Your task to perform on an android device: change notifications settings Image 0: 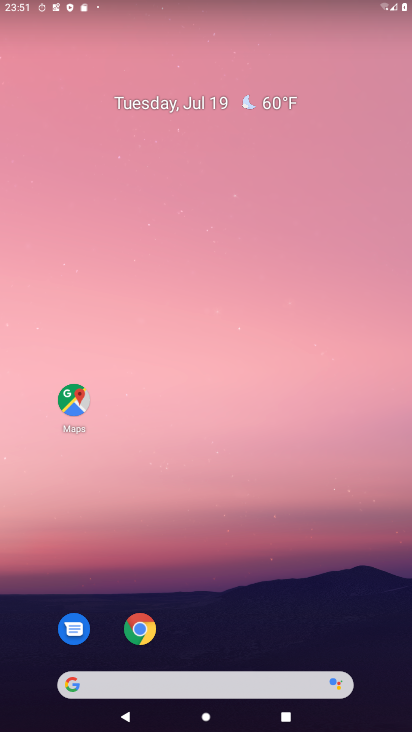
Step 0: drag from (266, 616) to (314, 132)
Your task to perform on an android device: change notifications settings Image 1: 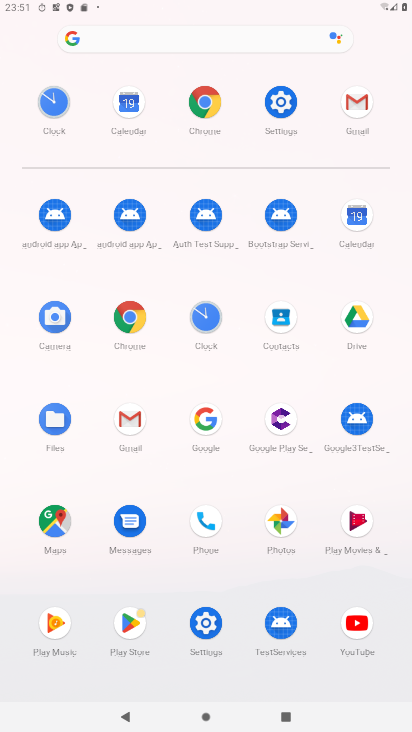
Step 1: click (291, 121)
Your task to perform on an android device: change notifications settings Image 2: 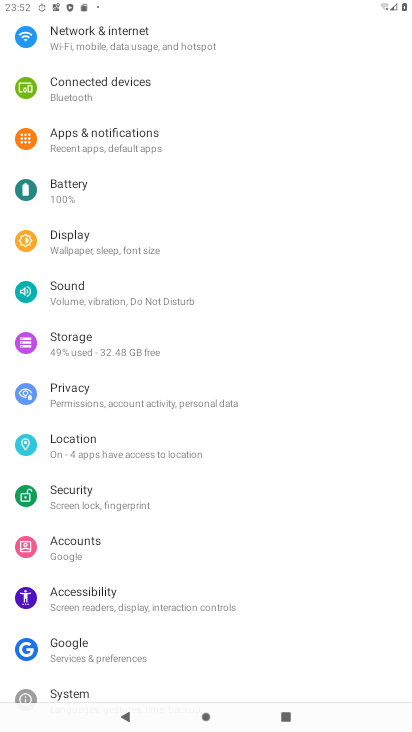
Step 2: click (196, 149)
Your task to perform on an android device: change notifications settings Image 3: 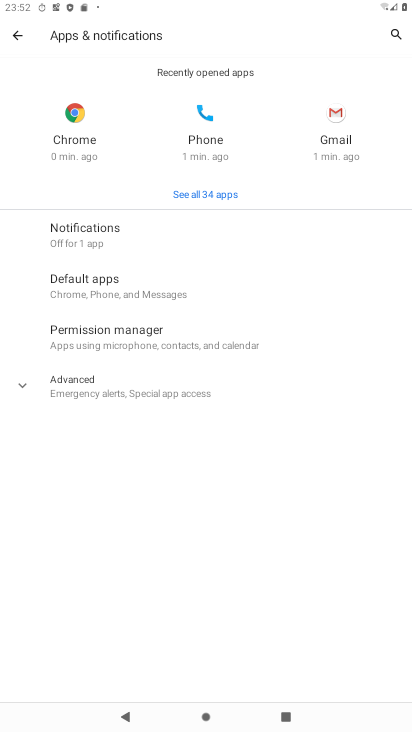
Step 3: click (60, 230)
Your task to perform on an android device: change notifications settings Image 4: 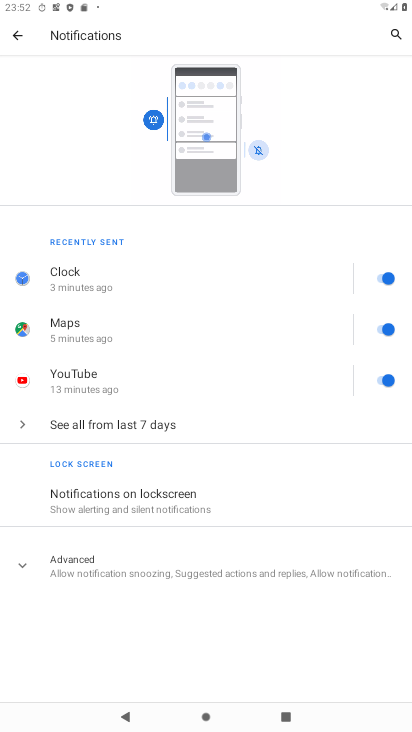
Step 4: click (166, 430)
Your task to perform on an android device: change notifications settings Image 5: 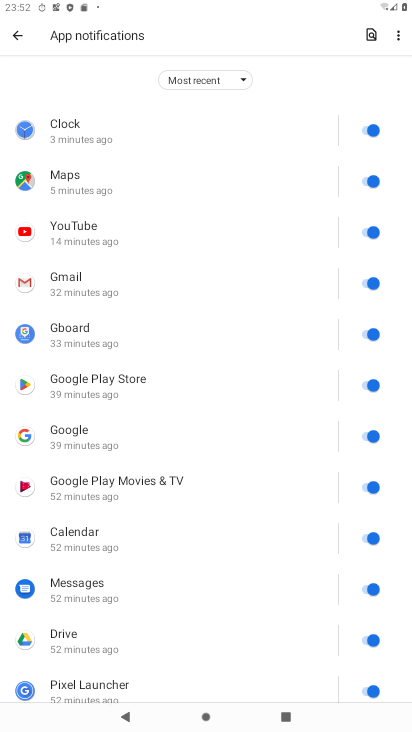
Step 5: click (380, 124)
Your task to perform on an android device: change notifications settings Image 6: 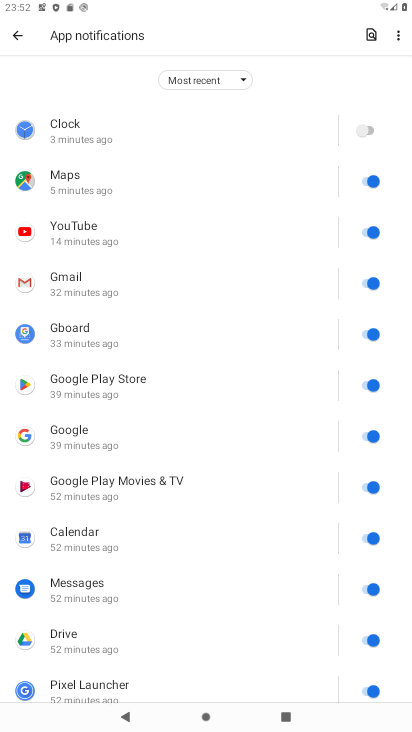
Step 6: click (362, 184)
Your task to perform on an android device: change notifications settings Image 7: 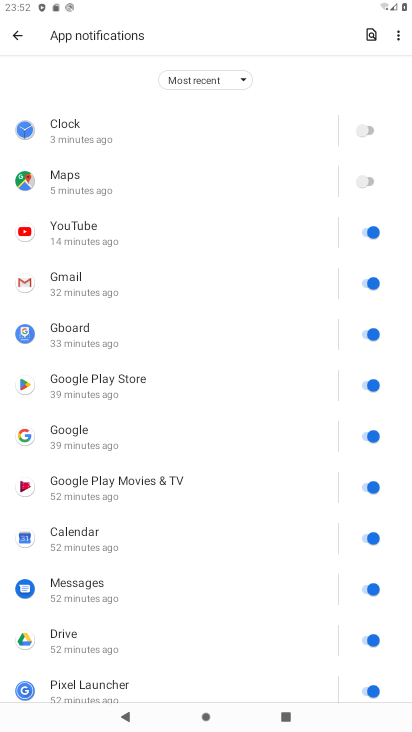
Step 7: click (367, 239)
Your task to perform on an android device: change notifications settings Image 8: 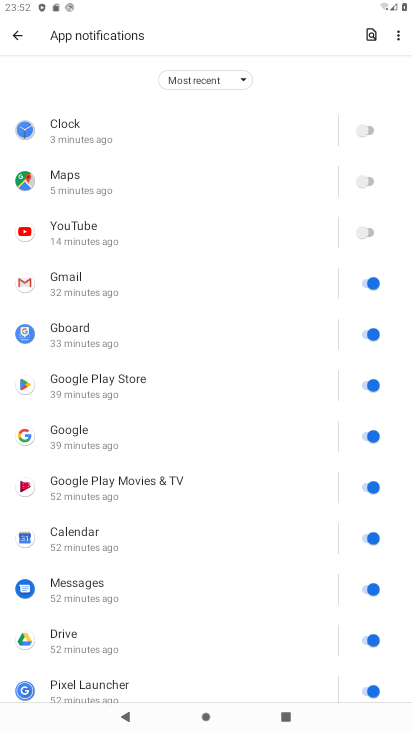
Step 8: click (349, 295)
Your task to perform on an android device: change notifications settings Image 9: 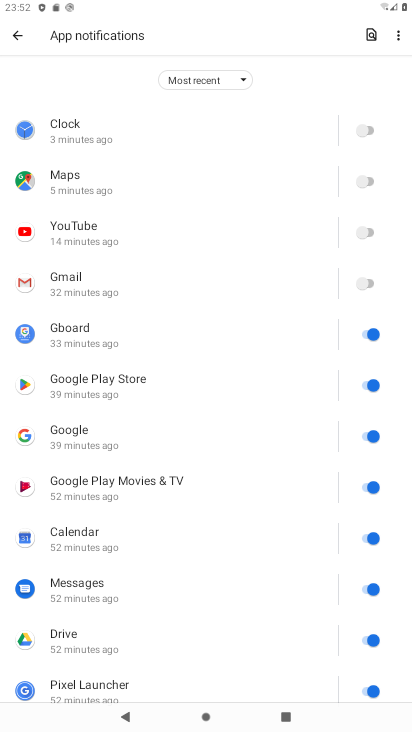
Step 9: click (359, 329)
Your task to perform on an android device: change notifications settings Image 10: 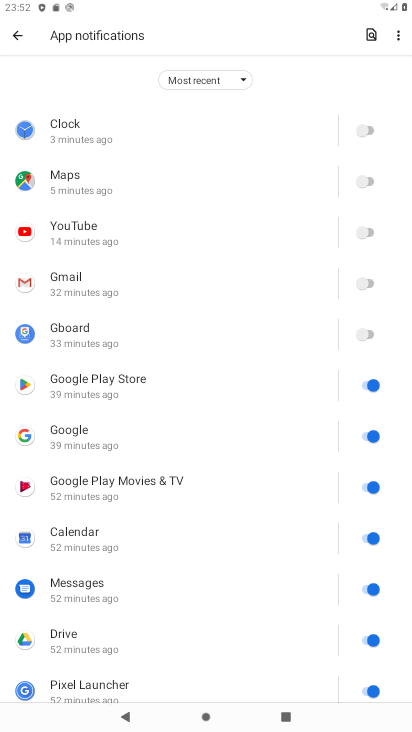
Step 10: click (376, 388)
Your task to perform on an android device: change notifications settings Image 11: 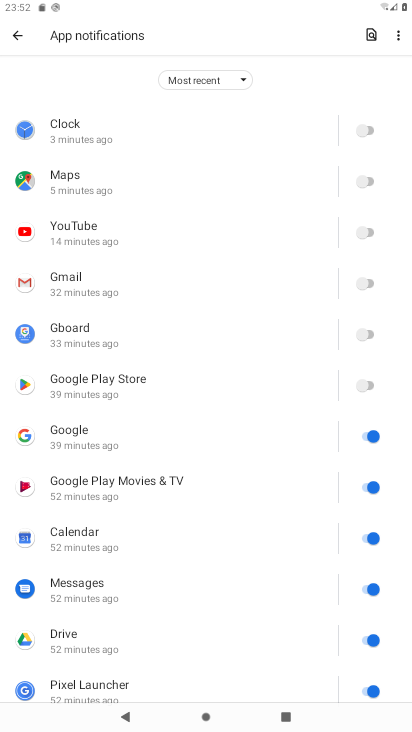
Step 11: click (371, 442)
Your task to perform on an android device: change notifications settings Image 12: 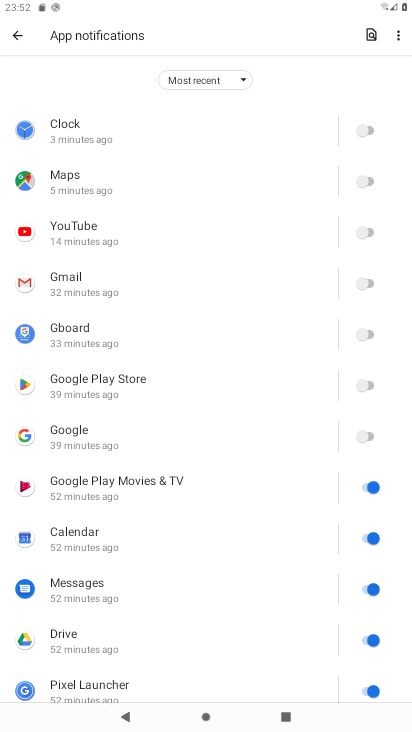
Step 12: click (373, 475)
Your task to perform on an android device: change notifications settings Image 13: 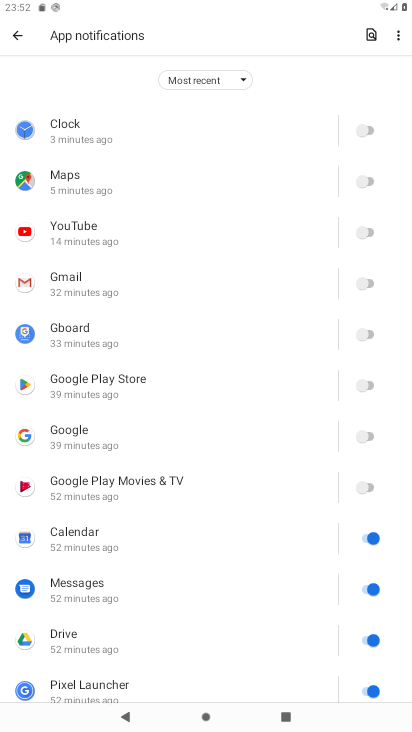
Step 13: click (364, 544)
Your task to perform on an android device: change notifications settings Image 14: 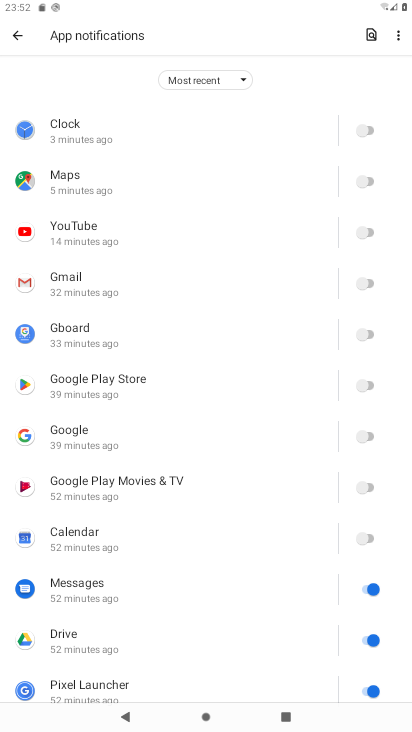
Step 14: click (367, 585)
Your task to perform on an android device: change notifications settings Image 15: 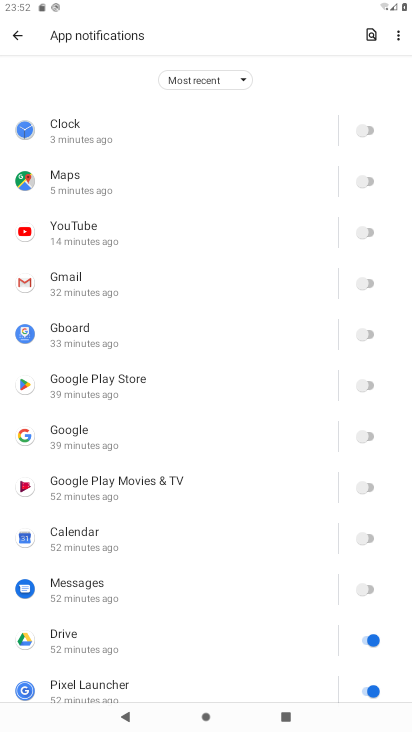
Step 15: click (370, 641)
Your task to perform on an android device: change notifications settings Image 16: 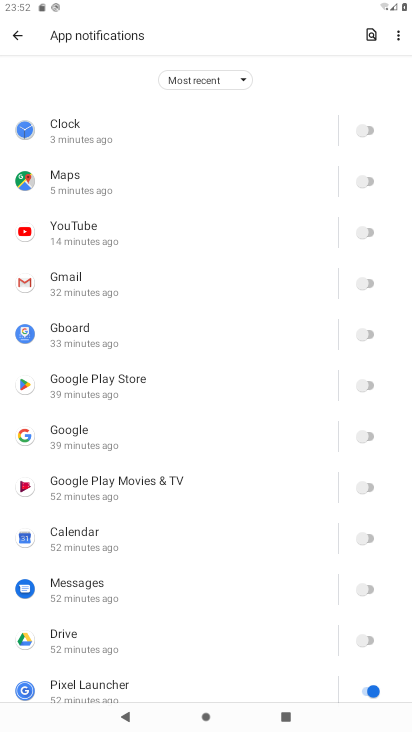
Step 16: click (376, 692)
Your task to perform on an android device: change notifications settings Image 17: 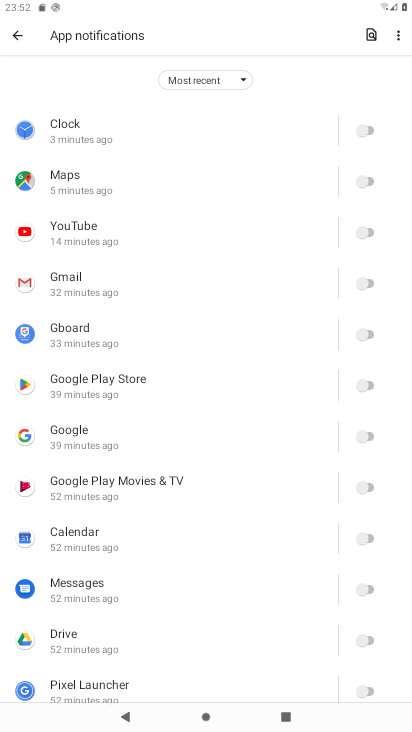
Step 17: drag from (285, 678) to (244, 206)
Your task to perform on an android device: change notifications settings Image 18: 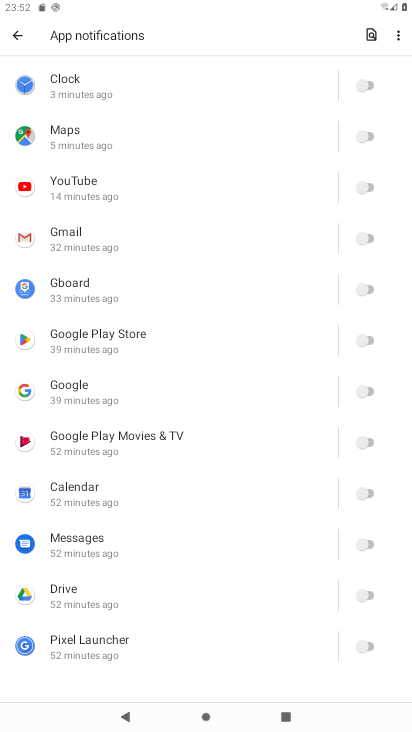
Step 18: click (22, 28)
Your task to perform on an android device: change notifications settings Image 19: 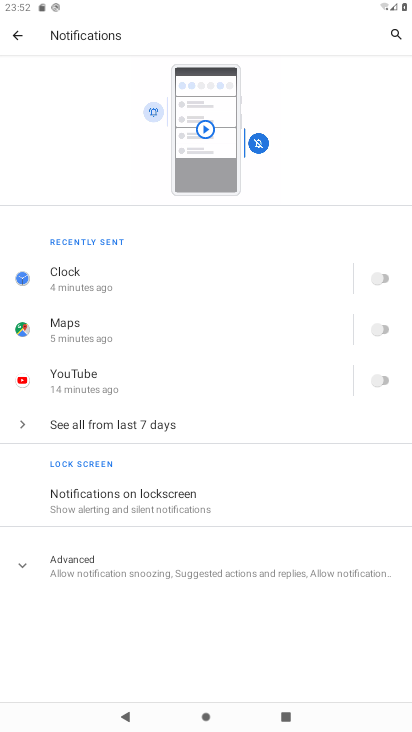
Step 19: click (173, 498)
Your task to perform on an android device: change notifications settings Image 20: 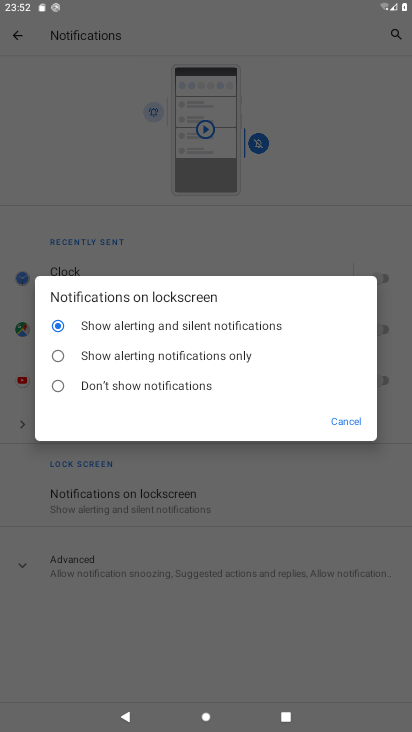
Step 20: click (168, 345)
Your task to perform on an android device: change notifications settings Image 21: 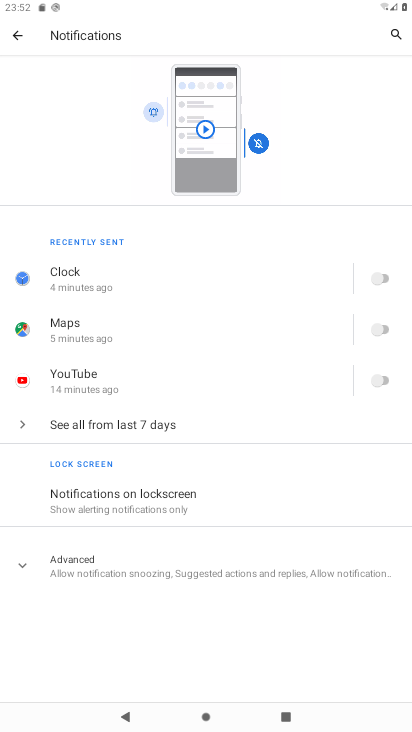
Step 21: click (127, 563)
Your task to perform on an android device: change notifications settings Image 22: 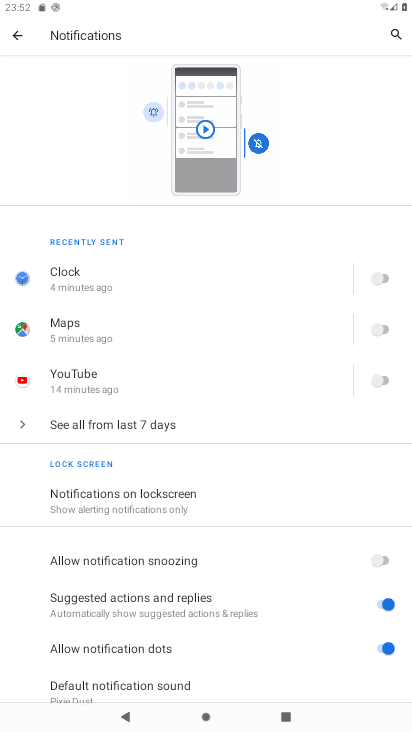
Step 22: click (391, 558)
Your task to perform on an android device: change notifications settings Image 23: 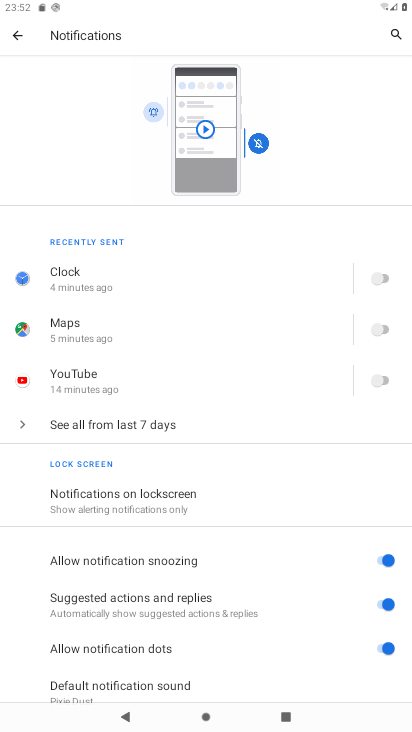
Step 23: click (376, 598)
Your task to perform on an android device: change notifications settings Image 24: 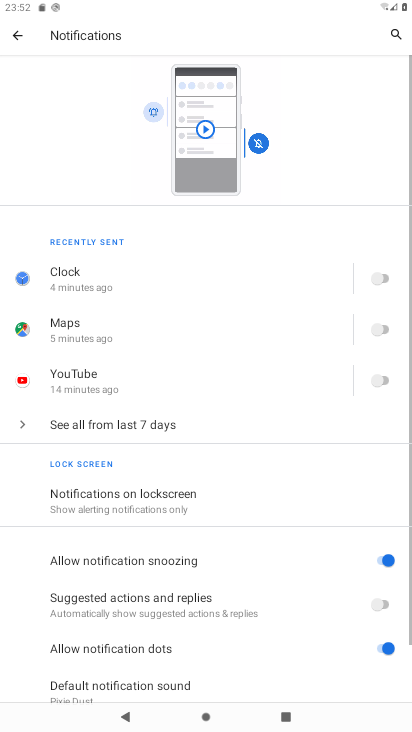
Step 24: click (390, 640)
Your task to perform on an android device: change notifications settings Image 25: 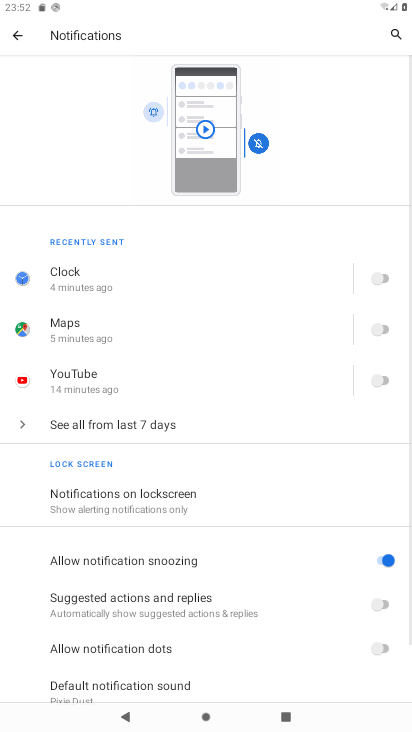
Step 25: task complete